Your task to perform on an android device: turn off wifi Image 0: 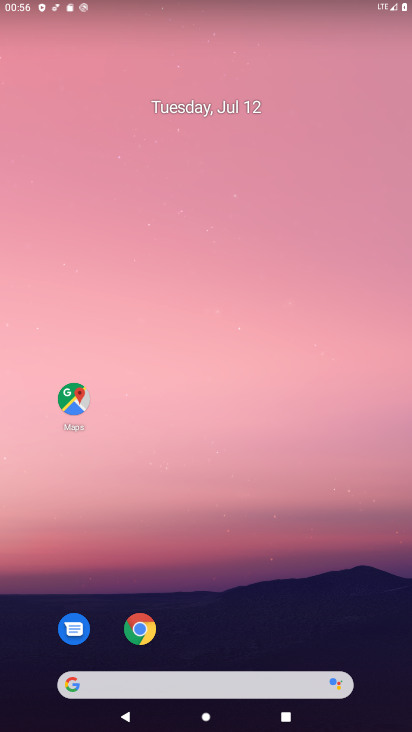
Step 0: drag from (25, 702) to (250, 164)
Your task to perform on an android device: turn off wifi Image 1: 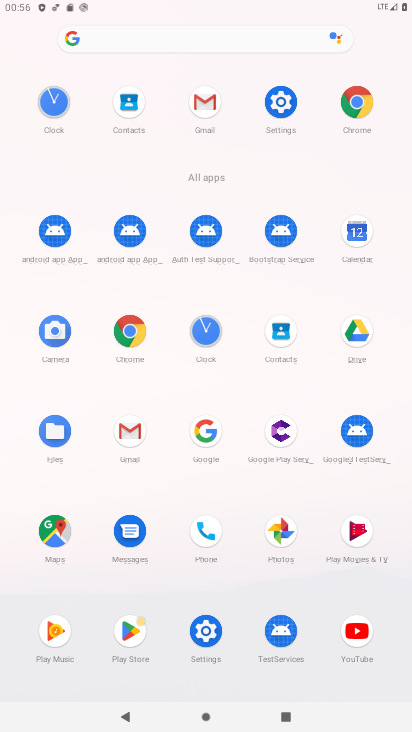
Step 1: click (209, 626)
Your task to perform on an android device: turn off wifi Image 2: 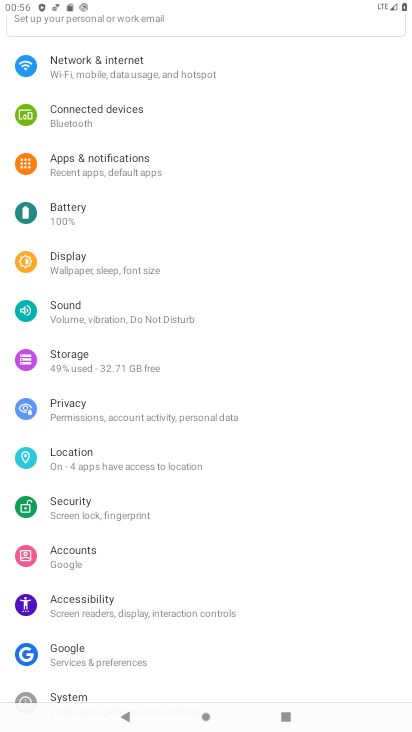
Step 2: click (132, 60)
Your task to perform on an android device: turn off wifi Image 3: 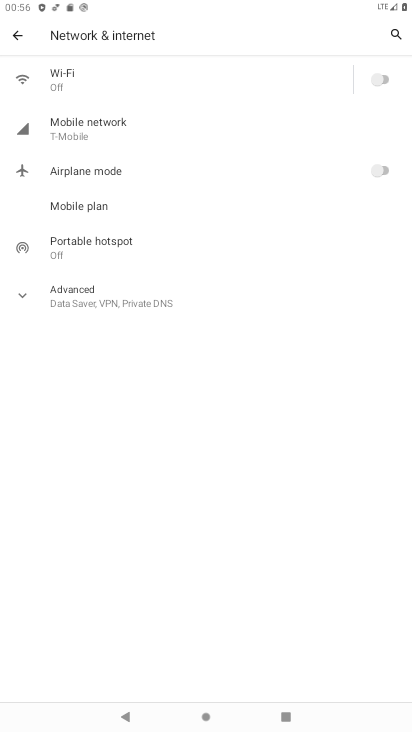
Step 3: task complete